Your task to perform on an android device: open wifi settings Image 0: 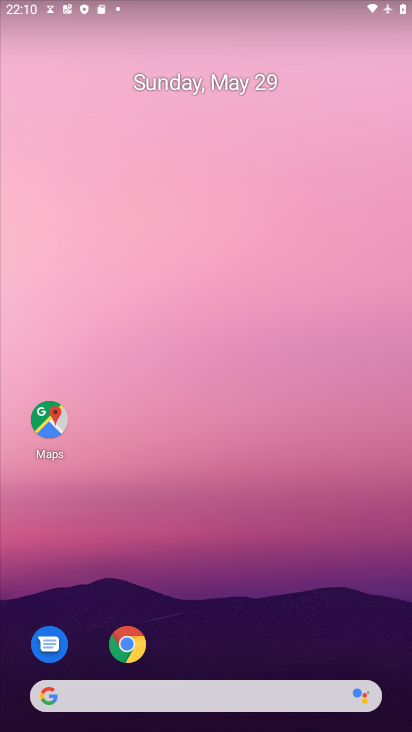
Step 0: drag from (231, 626) to (246, 337)
Your task to perform on an android device: open wifi settings Image 1: 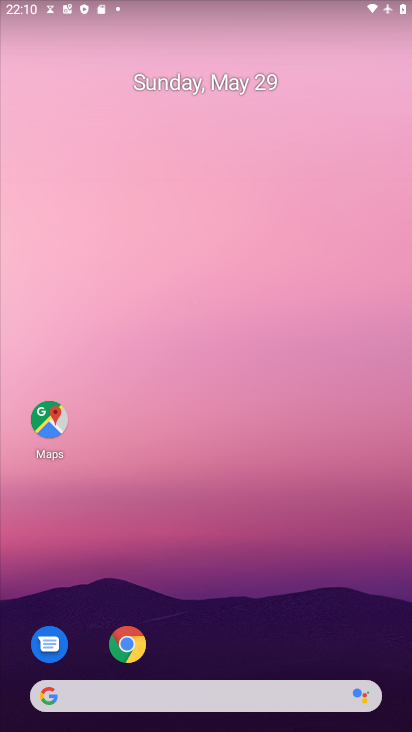
Step 1: drag from (275, 459) to (275, 339)
Your task to perform on an android device: open wifi settings Image 2: 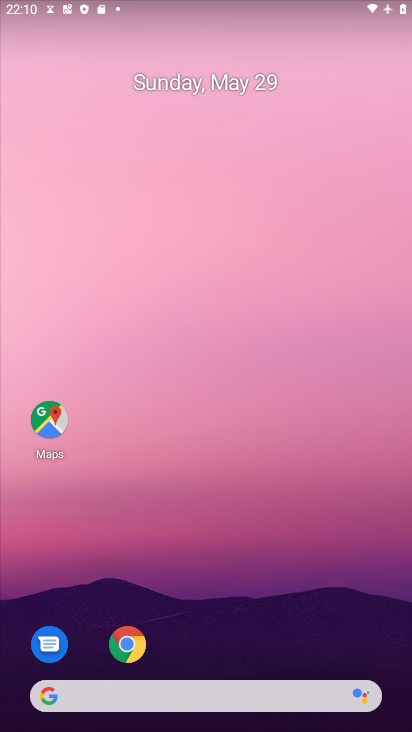
Step 2: drag from (202, 688) to (229, 257)
Your task to perform on an android device: open wifi settings Image 3: 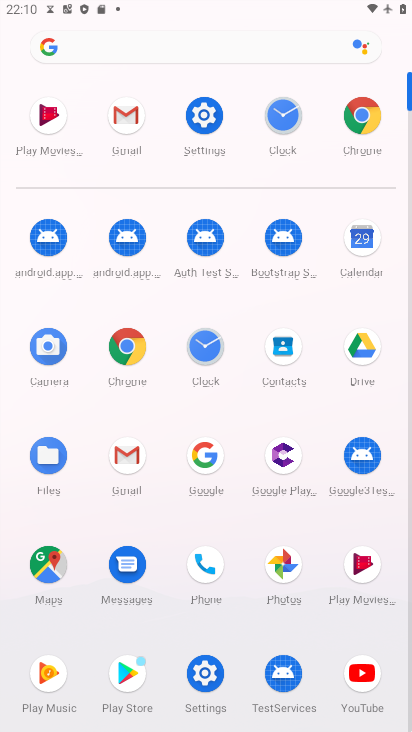
Step 3: click (195, 99)
Your task to perform on an android device: open wifi settings Image 4: 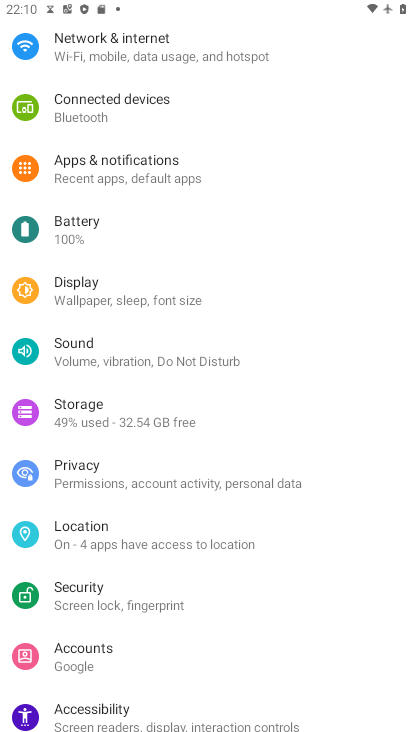
Step 4: drag from (195, 101) to (178, 577)
Your task to perform on an android device: open wifi settings Image 5: 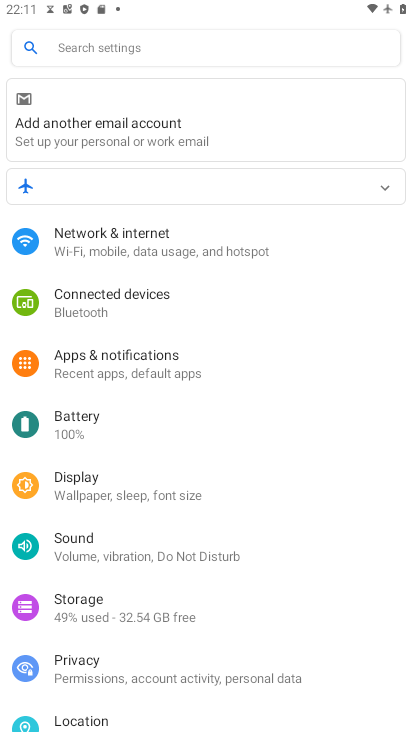
Step 5: click (150, 237)
Your task to perform on an android device: open wifi settings Image 6: 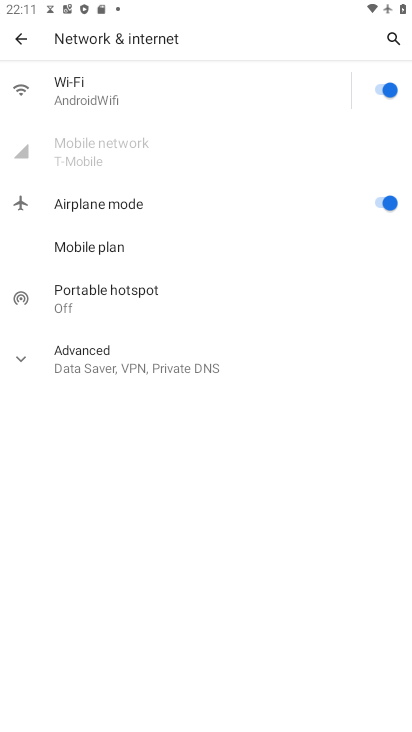
Step 6: click (154, 96)
Your task to perform on an android device: open wifi settings Image 7: 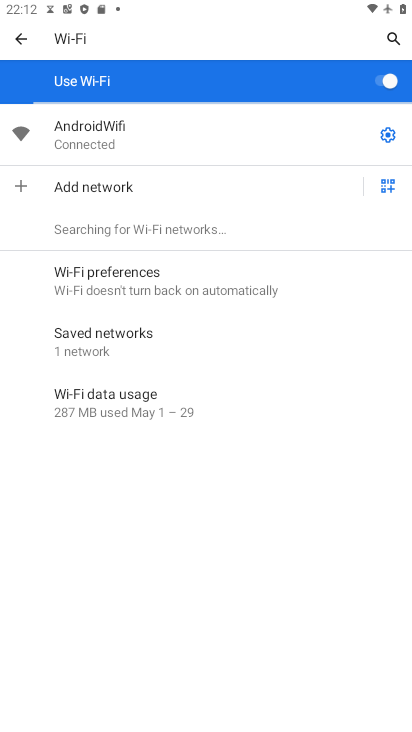
Step 7: task complete